Your task to perform on an android device: Clear the cart on newegg.com. Add "alienware area 51" to the cart on newegg.com, then select checkout. Image 0: 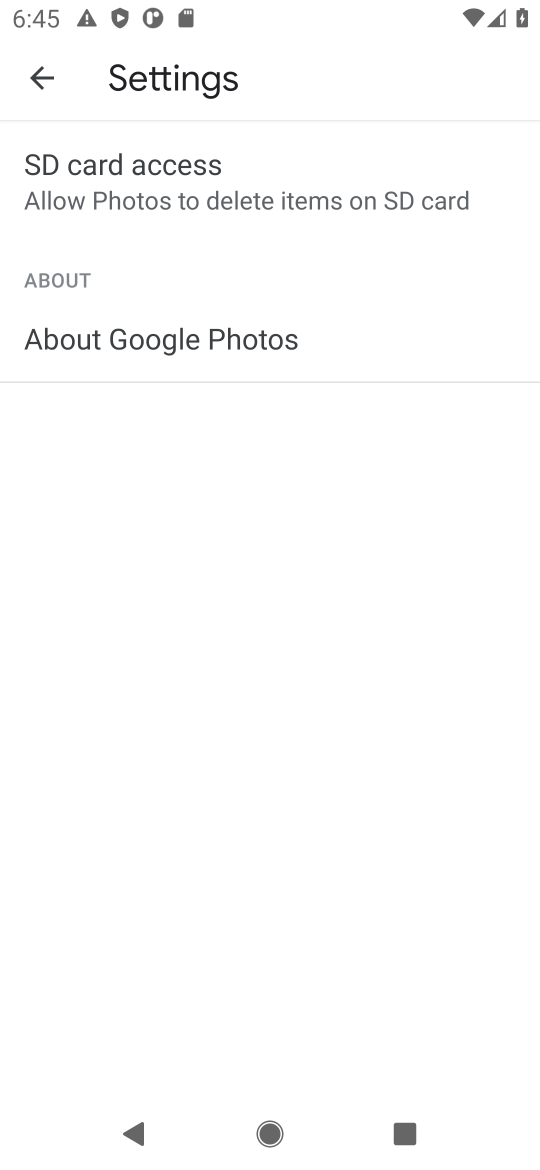
Step 0: press home button
Your task to perform on an android device: Clear the cart on newegg.com. Add "alienware area 51" to the cart on newegg.com, then select checkout. Image 1: 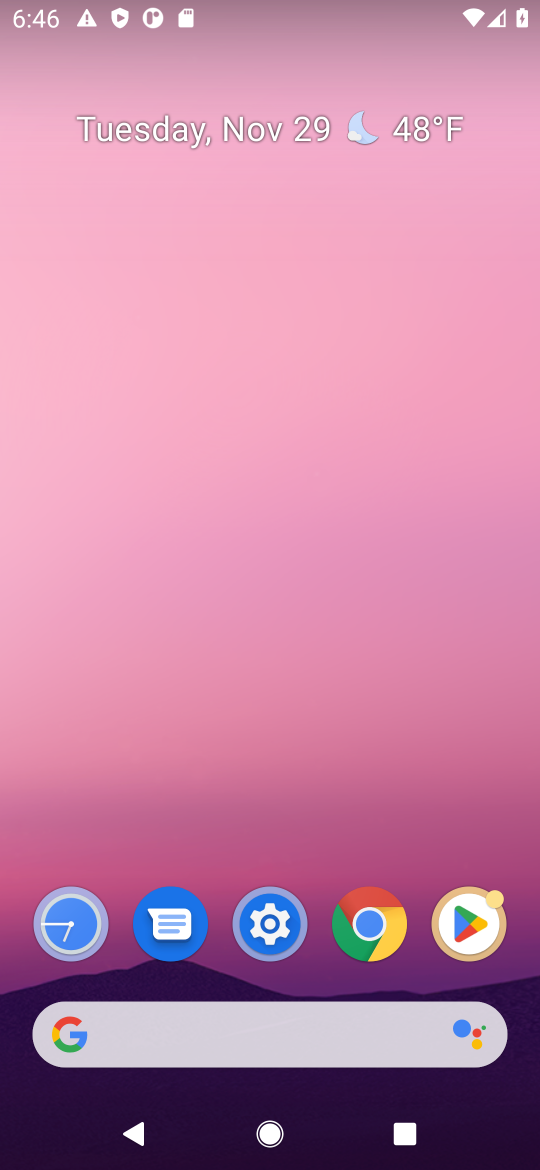
Step 1: click (237, 1066)
Your task to perform on an android device: Clear the cart on newegg.com. Add "alienware area 51" to the cart on newegg.com, then select checkout. Image 2: 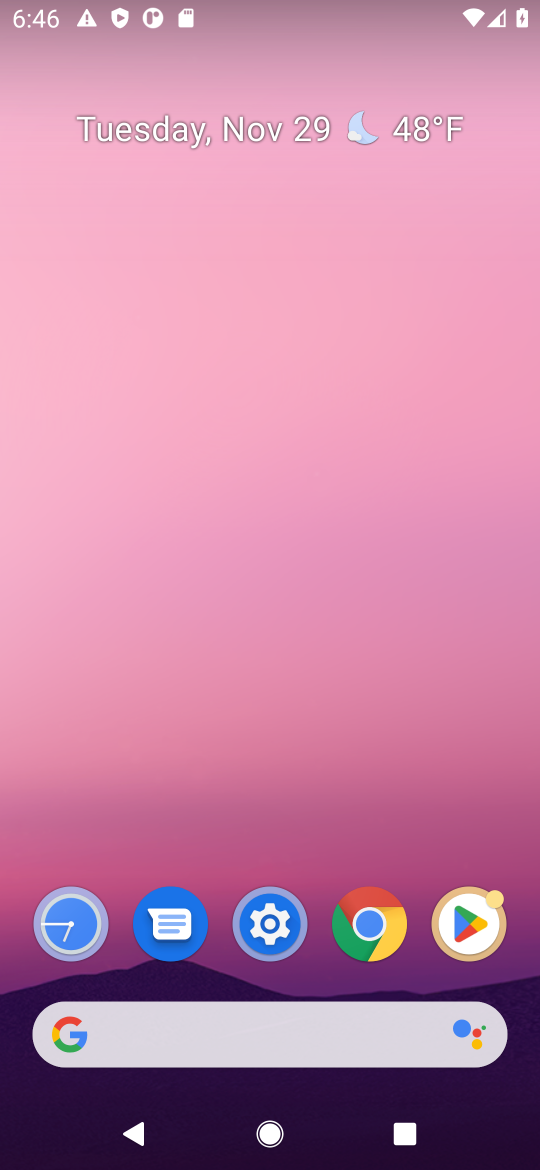
Step 2: click (241, 1061)
Your task to perform on an android device: Clear the cart on newegg.com. Add "alienware area 51" to the cart on newegg.com, then select checkout. Image 3: 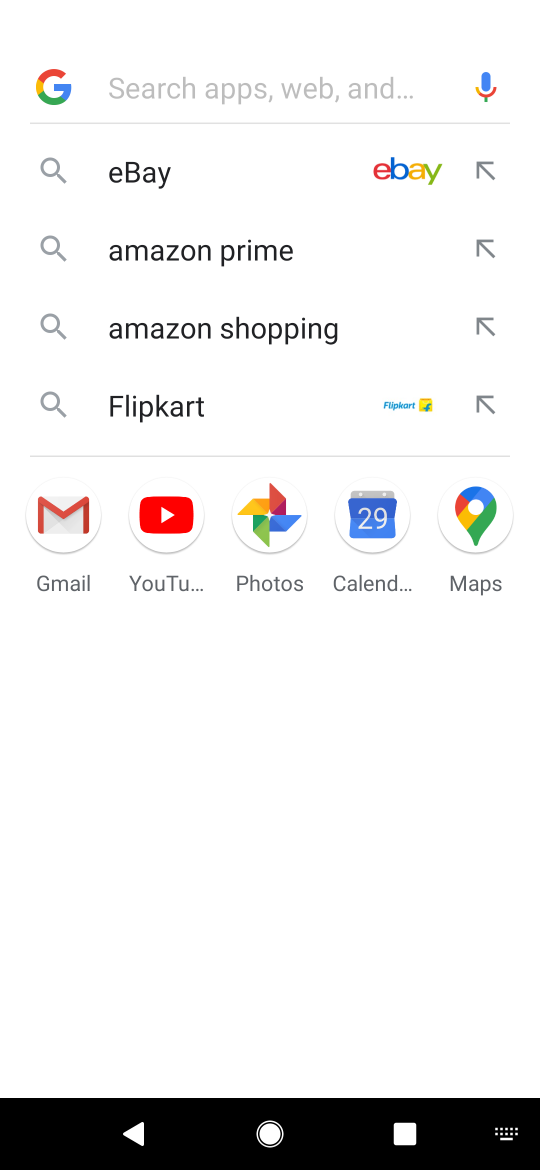
Step 3: type "newegg.com"
Your task to perform on an android device: Clear the cart on newegg.com. Add "alienware area 51" to the cart on newegg.com, then select checkout. Image 4: 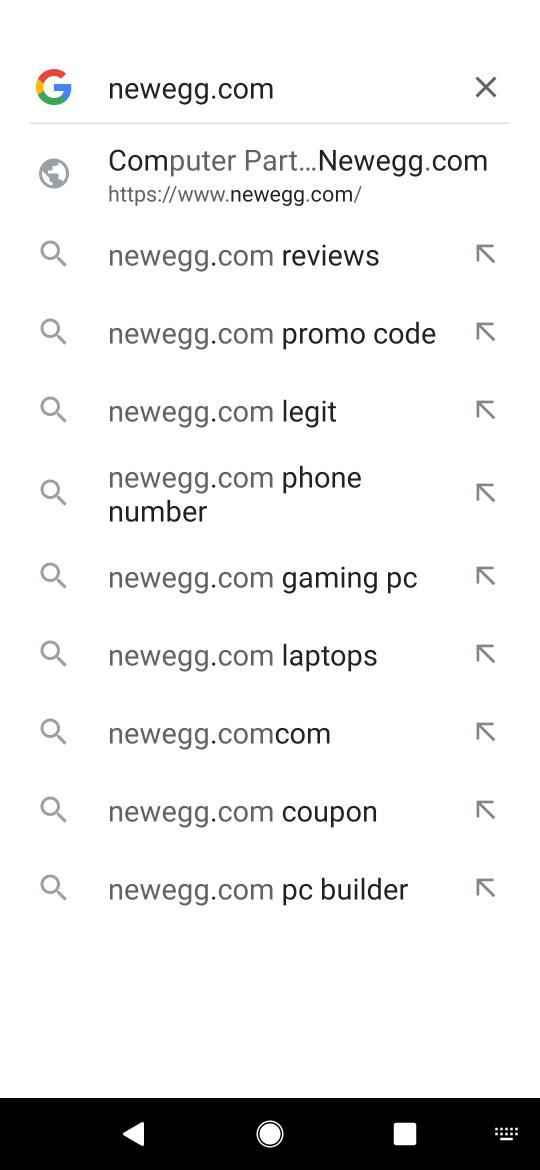
Step 4: click (191, 191)
Your task to perform on an android device: Clear the cart on newegg.com. Add "alienware area 51" to the cart on newegg.com, then select checkout. Image 5: 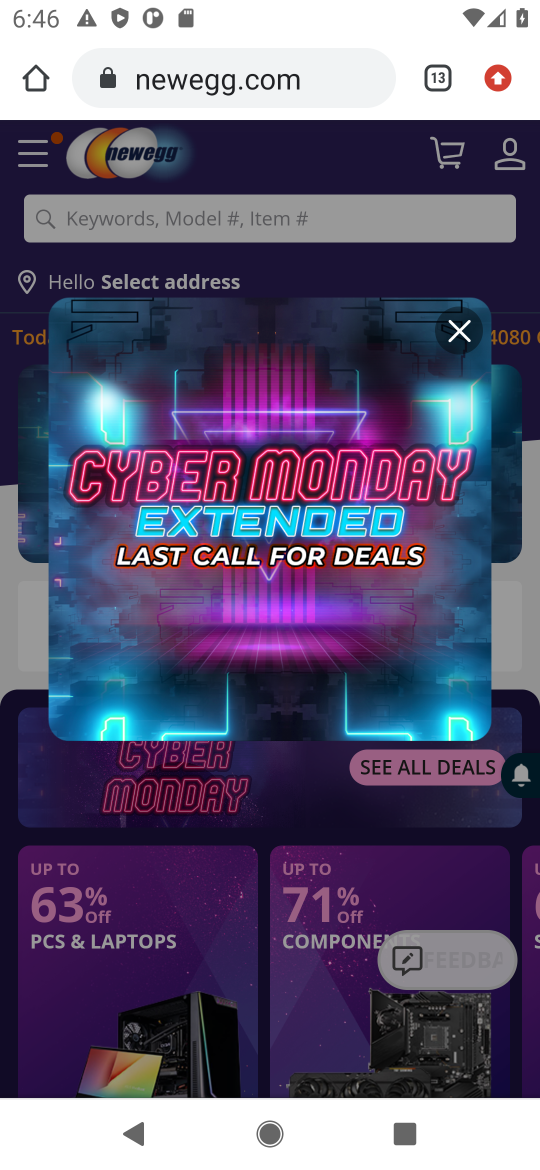
Step 5: click (199, 205)
Your task to perform on an android device: Clear the cart on newegg.com. Add "alienware area 51" to the cart on newegg.com, then select checkout. Image 6: 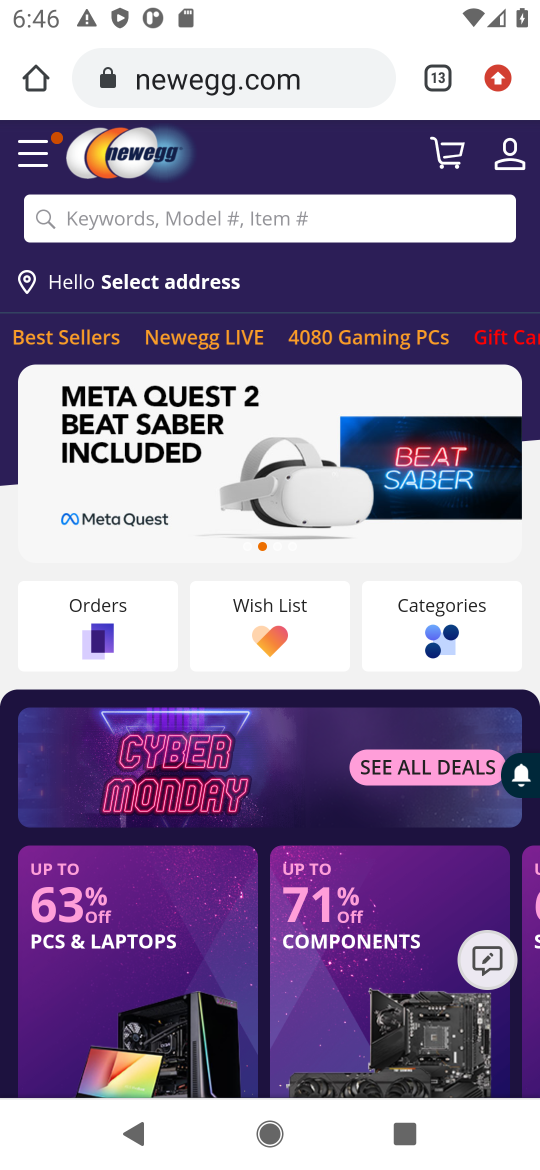
Step 6: click (317, 229)
Your task to perform on an android device: Clear the cart on newegg.com. Add "alienware area 51" to the cart on newegg.com, then select checkout. Image 7: 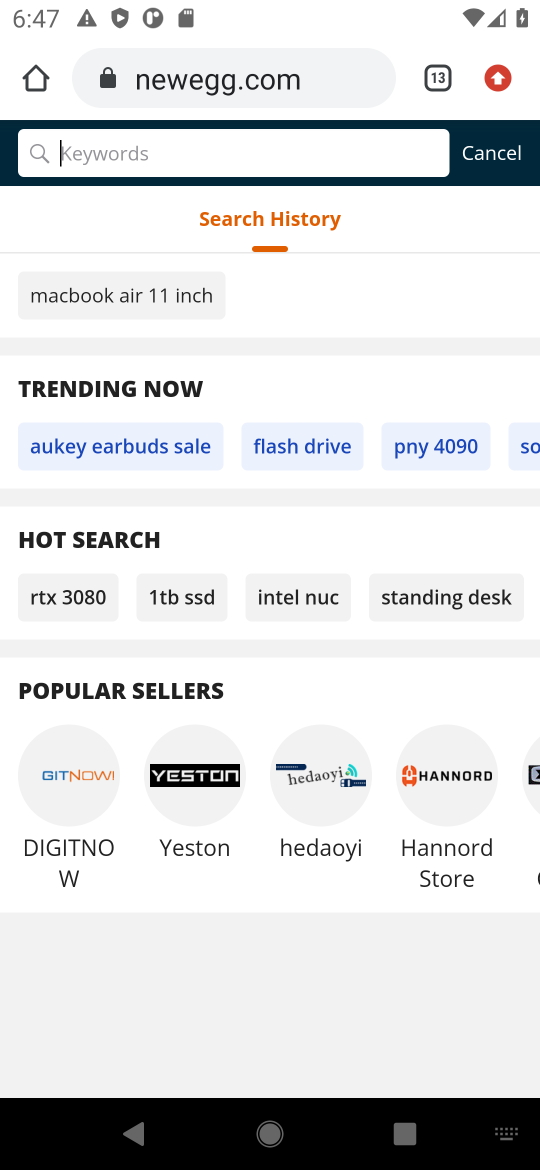
Step 7: type "alienware area 51"
Your task to perform on an android device: Clear the cart on newegg.com. Add "alienware area 51" to the cart on newegg.com, then select checkout. Image 8: 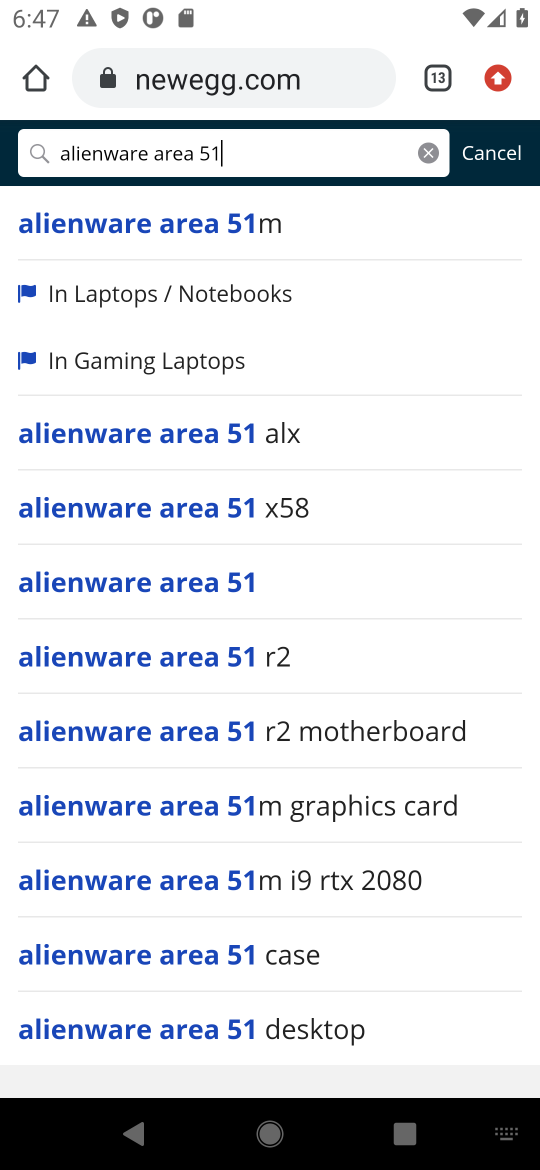
Step 8: click (156, 246)
Your task to perform on an android device: Clear the cart on newegg.com. Add "alienware area 51" to the cart on newegg.com, then select checkout. Image 9: 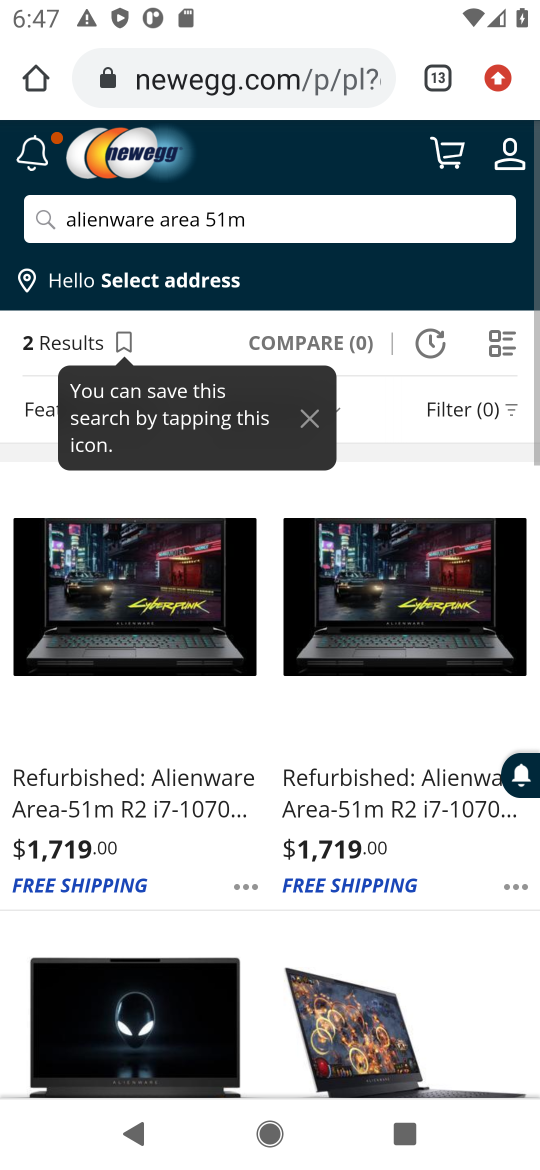
Step 9: click (244, 237)
Your task to perform on an android device: Clear the cart on newegg.com. Add "alienware area 51" to the cart on newegg.com, then select checkout. Image 10: 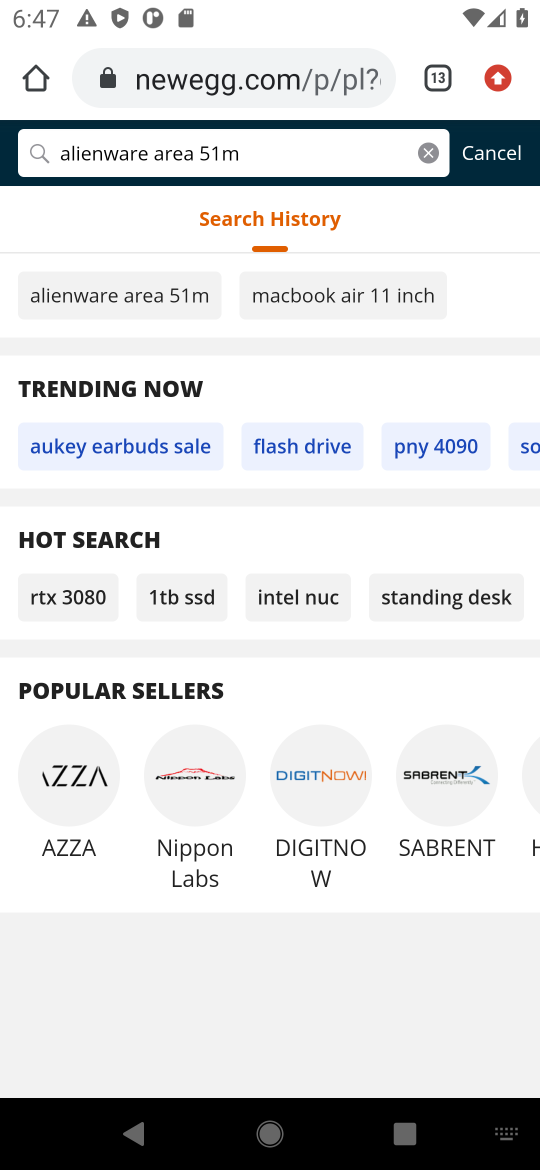
Step 10: task complete